Your task to perform on an android device: change the clock display to digital Image 0: 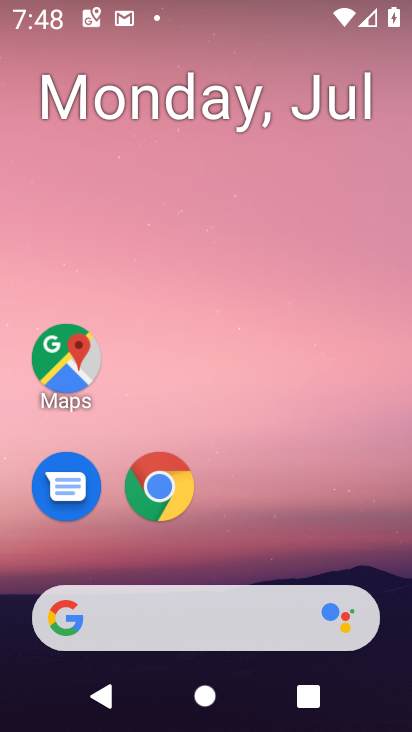
Step 0: drag from (377, 546) to (380, 188)
Your task to perform on an android device: change the clock display to digital Image 1: 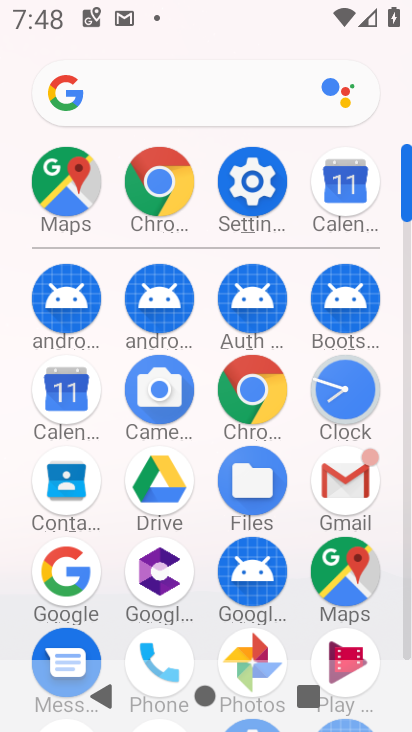
Step 1: click (356, 394)
Your task to perform on an android device: change the clock display to digital Image 2: 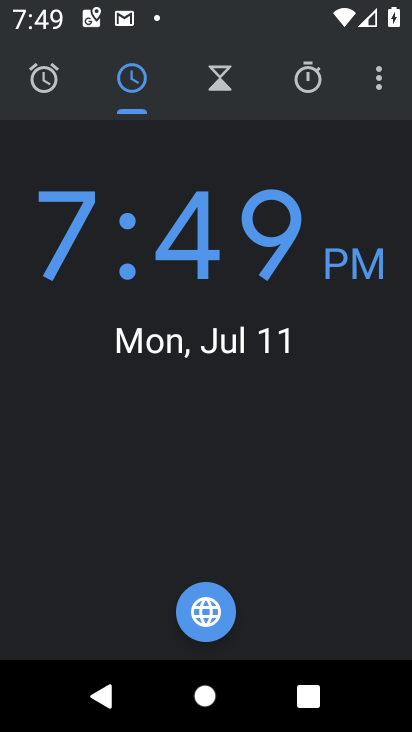
Step 2: click (380, 85)
Your task to perform on an android device: change the clock display to digital Image 3: 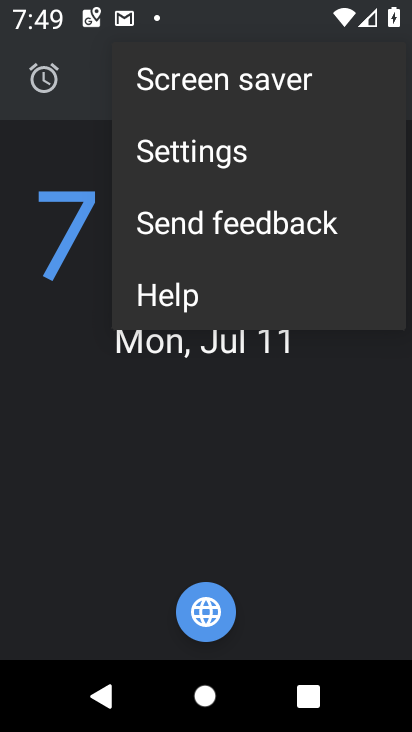
Step 3: click (305, 159)
Your task to perform on an android device: change the clock display to digital Image 4: 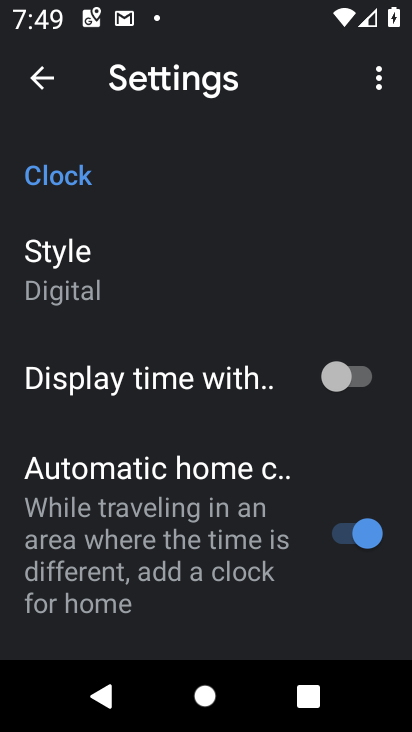
Step 4: task complete